Your task to perform on an android device: move a message to another label in the gmail app Image 0: 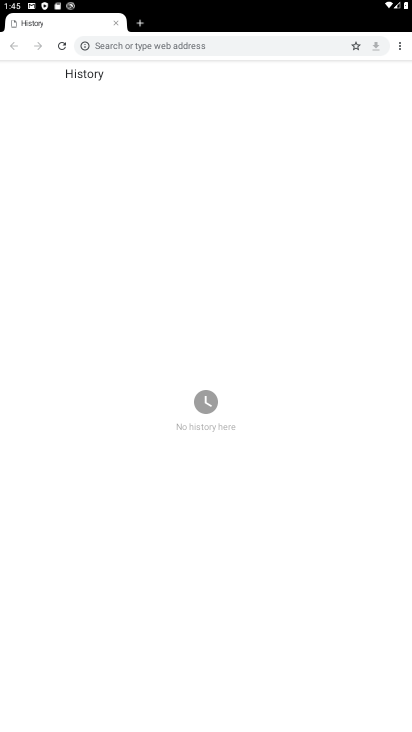
Step 0: press home button
Your task to perform on an android device: move a message to another label in the gmail app Image 1: 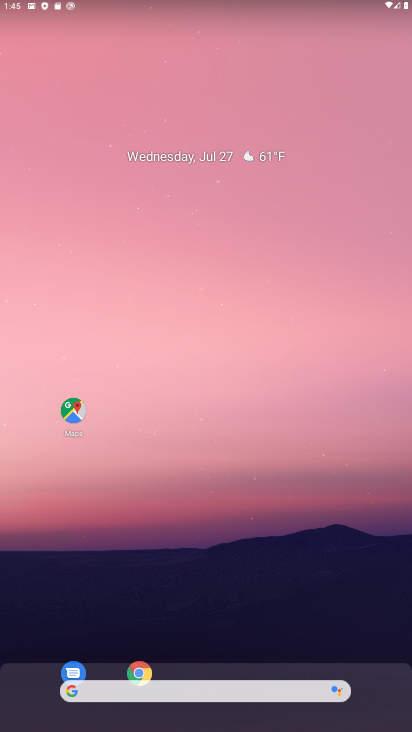
Step 1: drag from (206, 315) to (185, 24)
Your task to perform on an android device: move a message to another label in the gmail app Image 2: 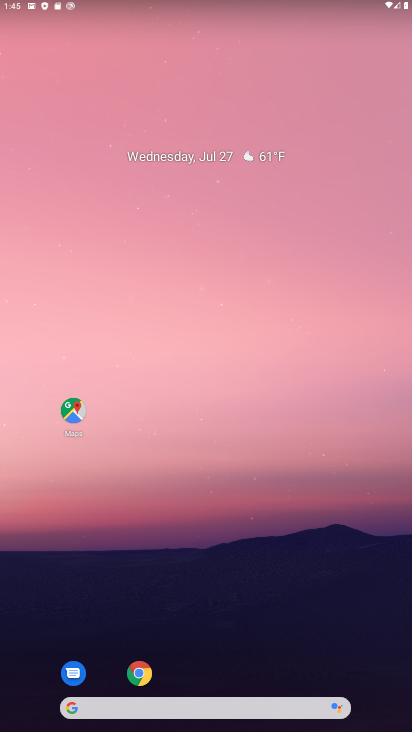
Step 2: drag from (185, 659) to (183, 214)
Your task to perform on an android device: move a message to another label in the gmail app Image 3: 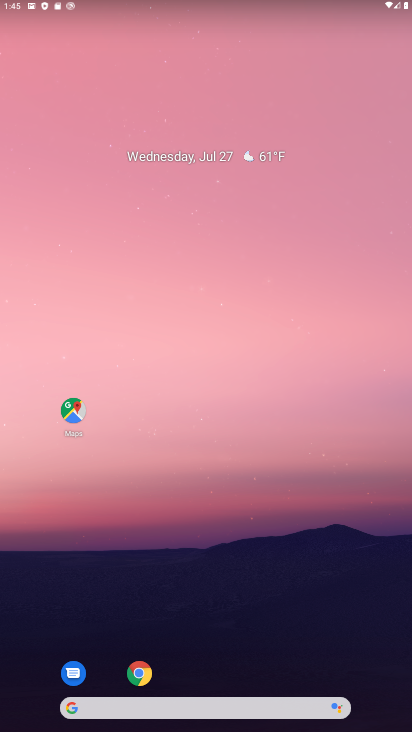
Step 3: drag from (230, 684) to (172, 208)
Your task to perform on an android device: move a message to another label in the gmail app Image 4: 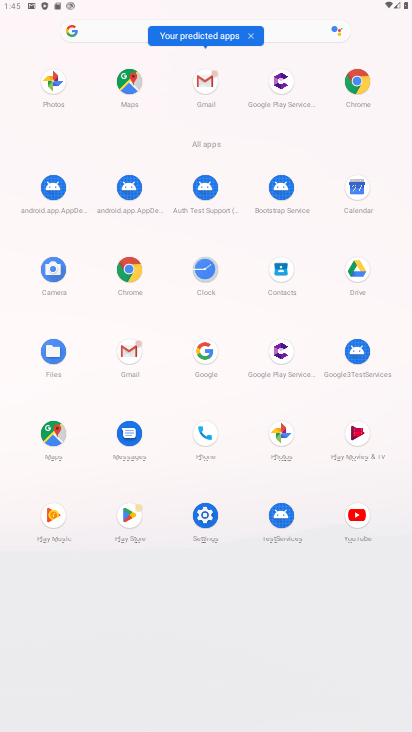
Step 4: click (206, 74)
Your task to perform on an android device: move a message to another label in the gmail app Image 5: 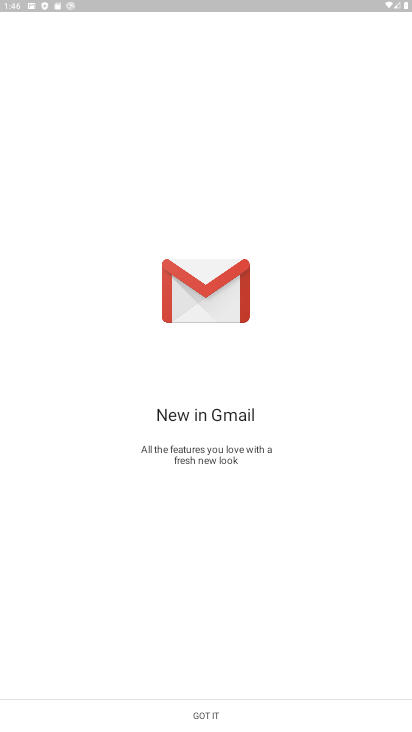
Step 5: click (190, 717)
Your task to perform on an android device: move a message to another label in the gmail app Image 6: 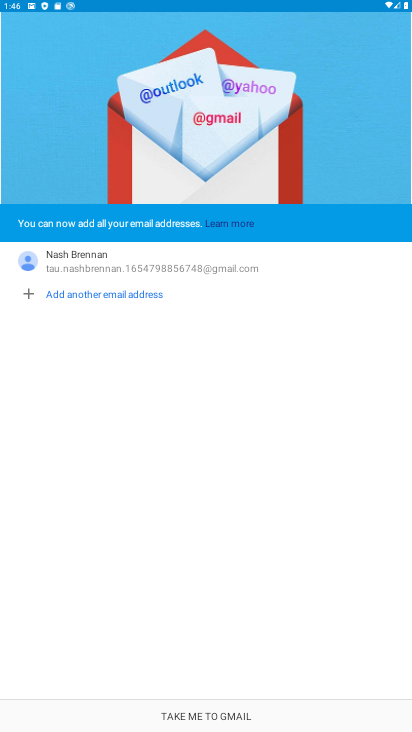
Step 6: click (190, 717)
Your task to perform on an android device: move a message to another label in the gmail app Image 7: 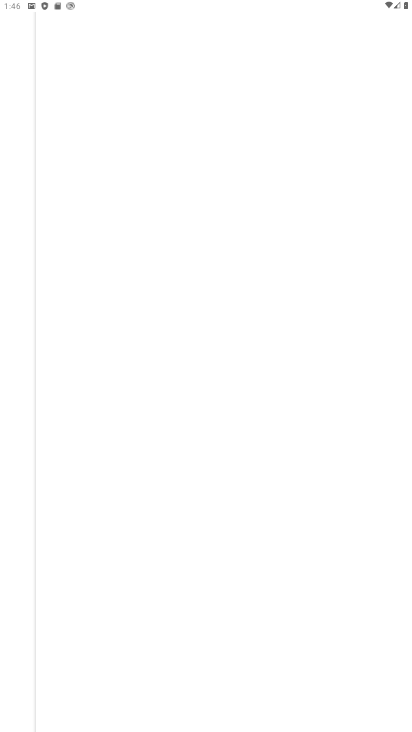
Step 7: click (190, 717)
Your task to perform on an android device: move a message to another label in the gmail app Image 8: 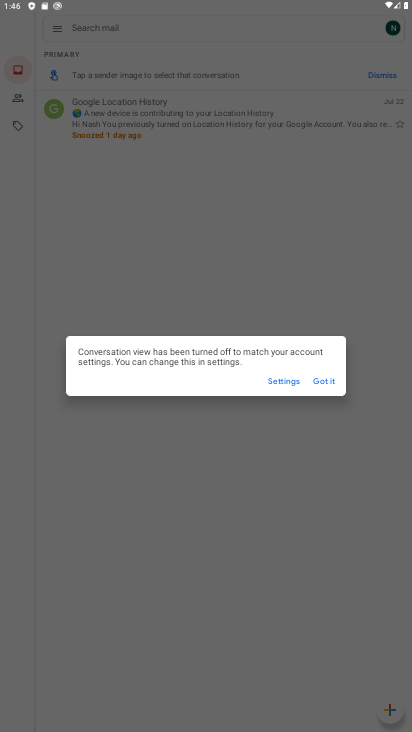
Step 8: click (331, 379)
Your task to perform on an android device: move a message to another label in the gmail app Image 9: 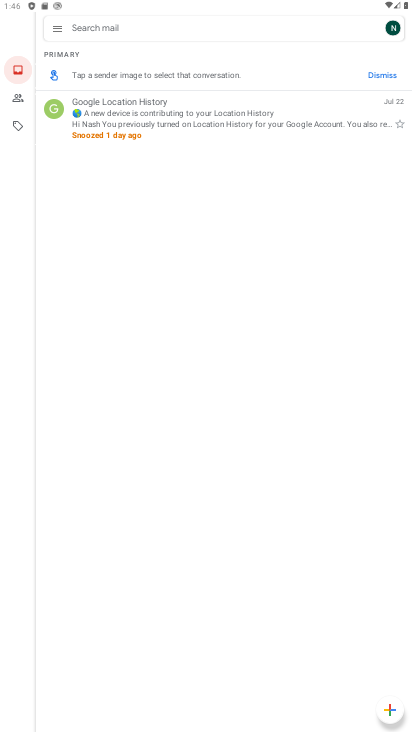
Step 9: click (56, 106)
Your task to perform on an android device: move a message to another label in the gmail app Image 10: 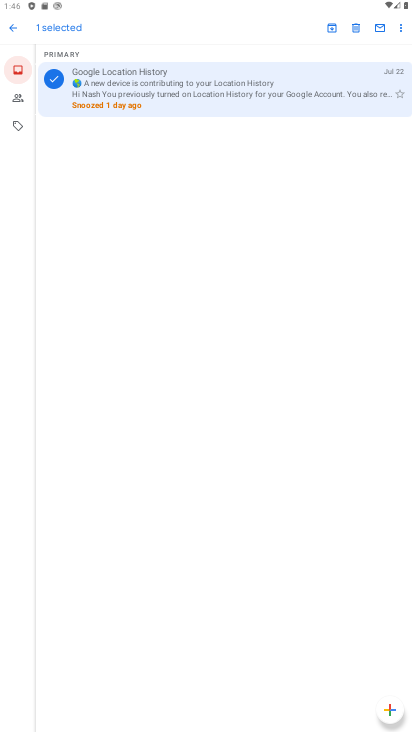
Step 10: click (405, 29)
Your task to perform on an android device: move a message to another label in the gmail app Image 11: 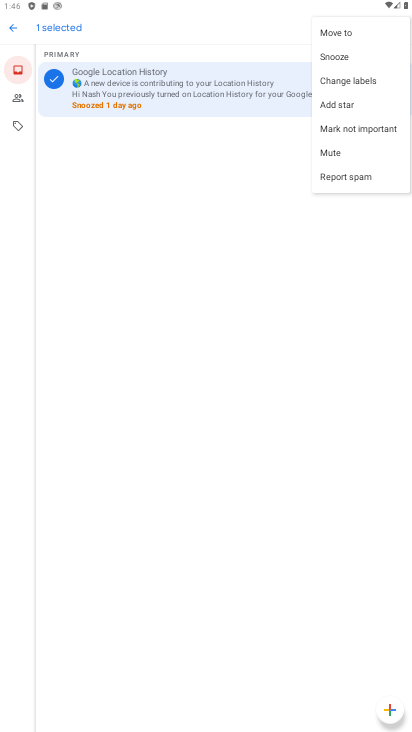
Step 11: click (353, 82)
Your task to perform on an android device: move a message to another label in the gmail app Image 12: 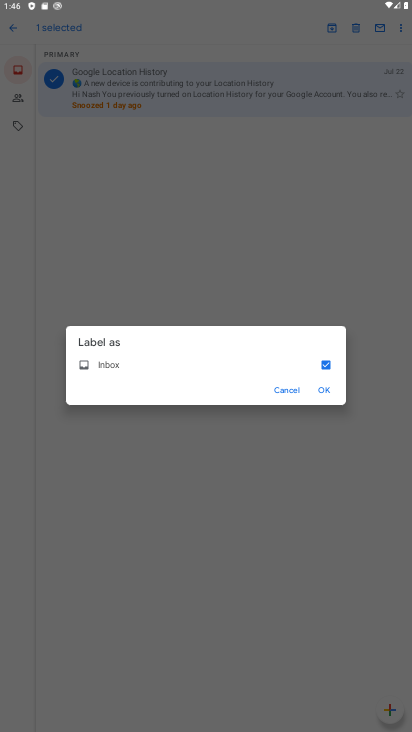
Step 12: click (330, 389)
Your task to perform on an android device: move a message to another label in the gmail app Image 13: 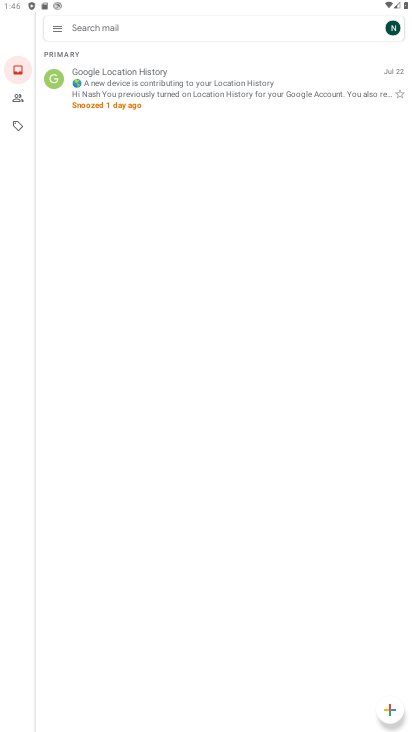
Step 13: task complete